Your task to perform on an android device: Open accessibility settings Image 0: 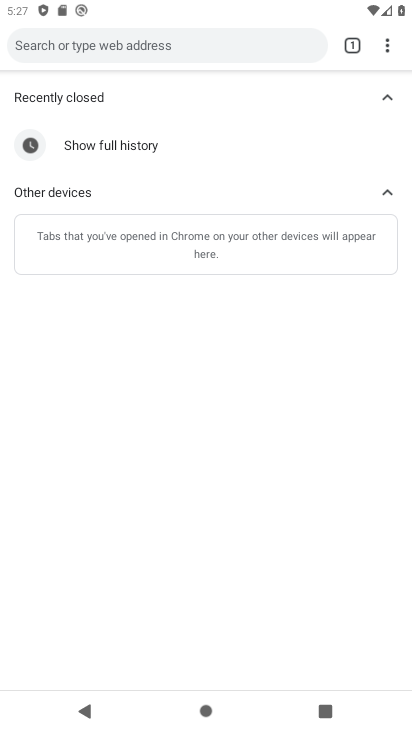
Step 0: press back button
Your task to perform on an android device: Open accessibility settings Image 1: 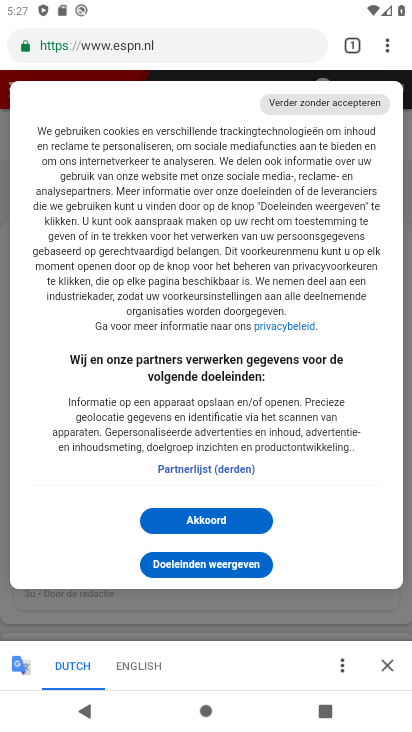
Step 1: press home button
Your task to perform on an android device: Open accessibility settings Image 2: 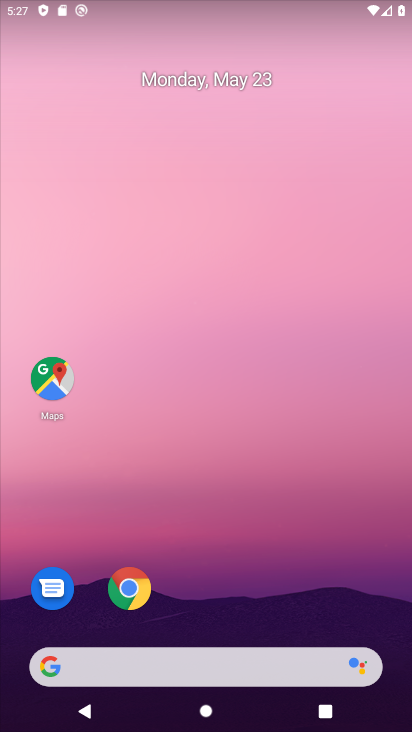
Step 2: drag from (245, 437) to (240, 18)
Your task to perform on an android device: Open accessibility settings Image 3: 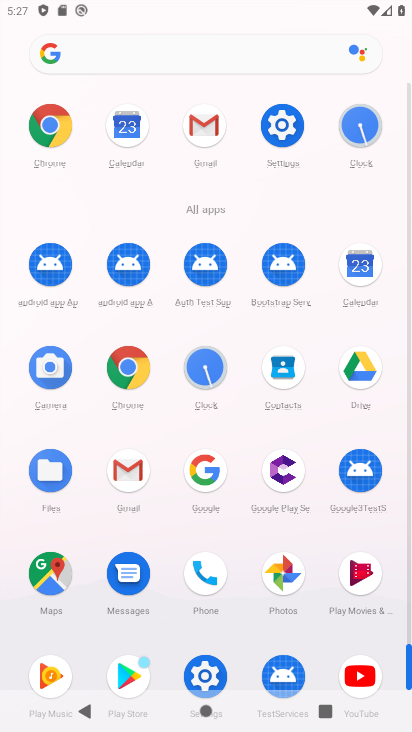
Step 3: click (281, 121)
Your task to perform on an android device: Open accessibility settings Image 4: 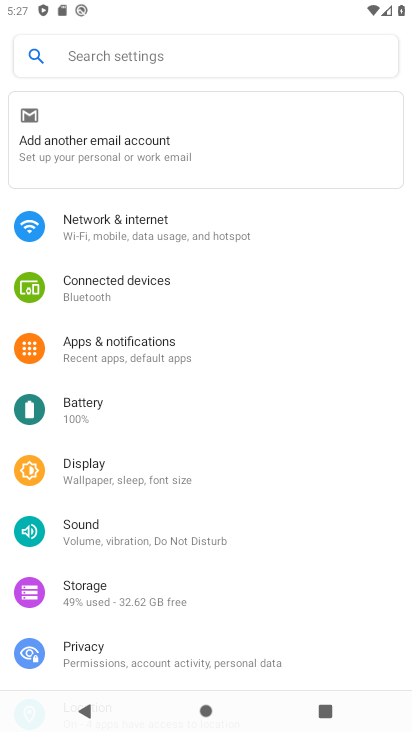
Step 4: drag from (260, 471) to (260, 175)
Your task to perform on an android device: Open accessibility settings Image 5: 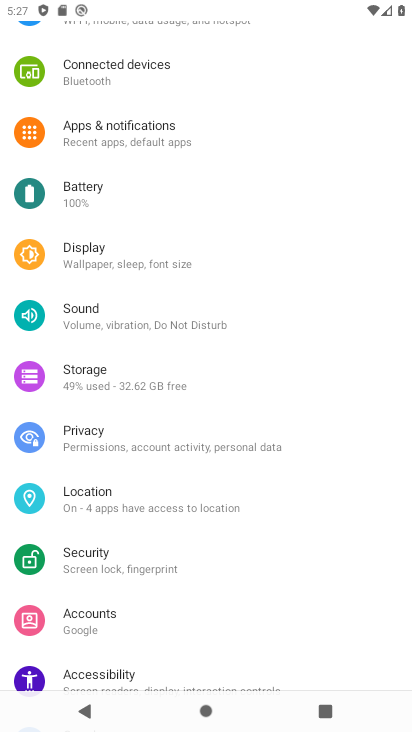
Step 5: drag from (268, 567) to (282, 99)
Your task to perform on an android device: Open accessibility settings Image 6: 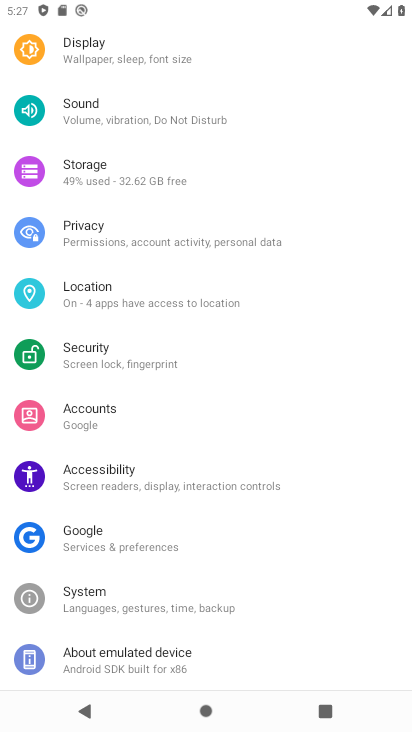
Step 6: click (144, 474)
Your task to perform on an android device: Open accessibility settings Image 7: 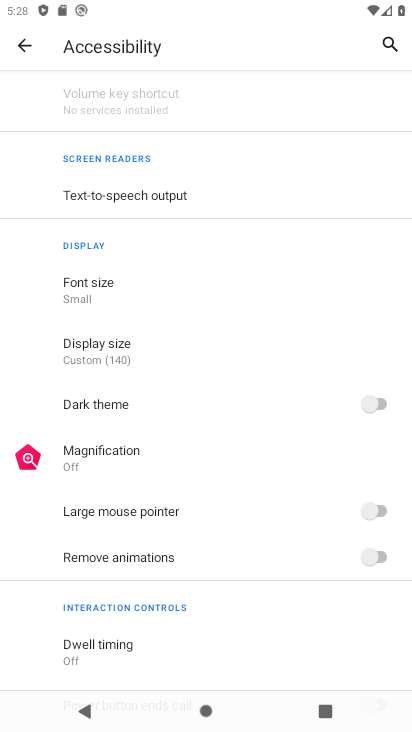
Step 7: task complete